Your task to perform on an android device: Open battery settings Image 0: 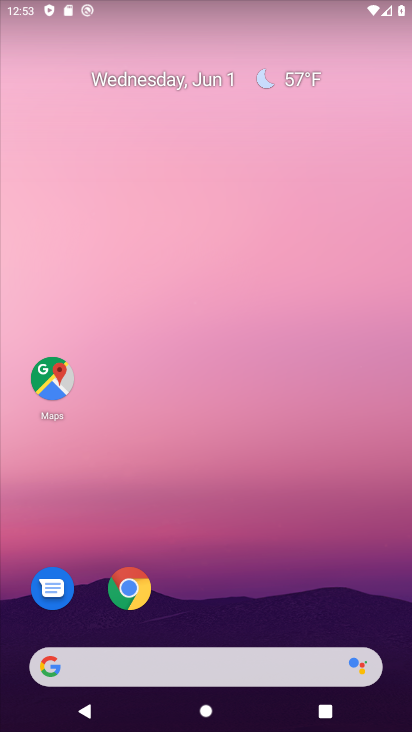
Step 0: drag from (247, 331) to (211, 26)
Your task to perform on an android device: Open battery settings Image 1: 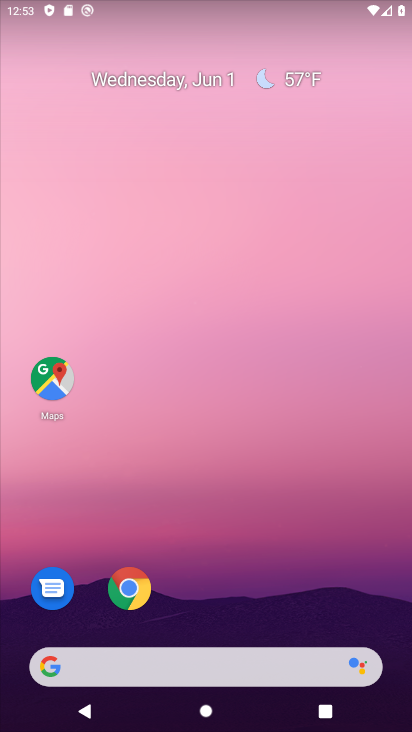
Step 1: drag from (271, 472) to (206, 132)
Your task to perform on an android device: Open battery settings Image 2: 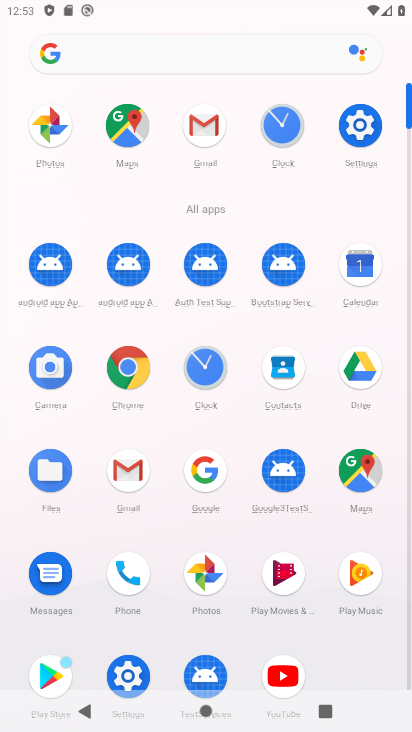
Step 2: click (347, 127)
Your task to perform on an android device: Open battery settings Image 3: 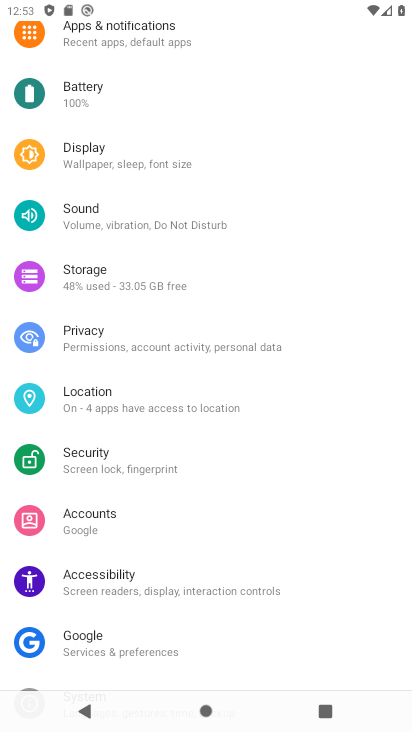
Step 3: click (201, 86)
Your task to perform on an android device: Open battery settings Image 4: 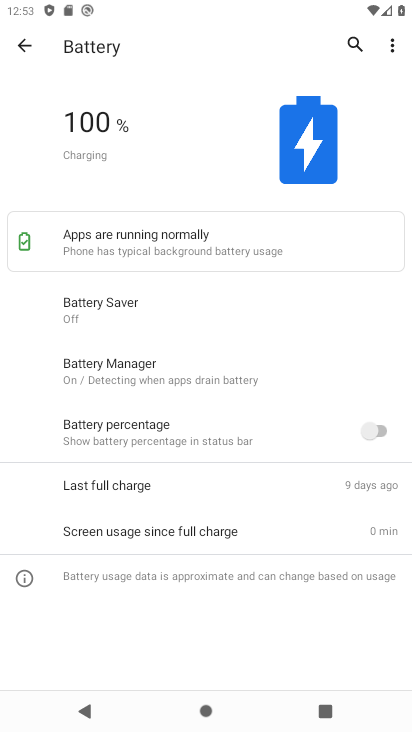
Step 4: task complete